Your task to perform on an android device: Open notification settings Image 0: 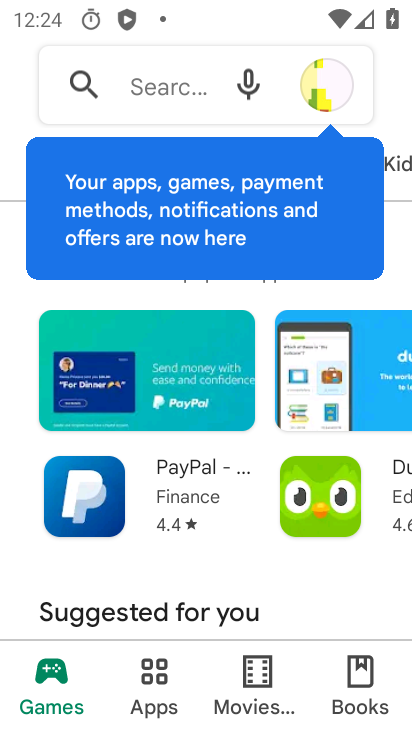
Step 0: press home button
Your task to perform on an android device: Open notification settings Image 1: 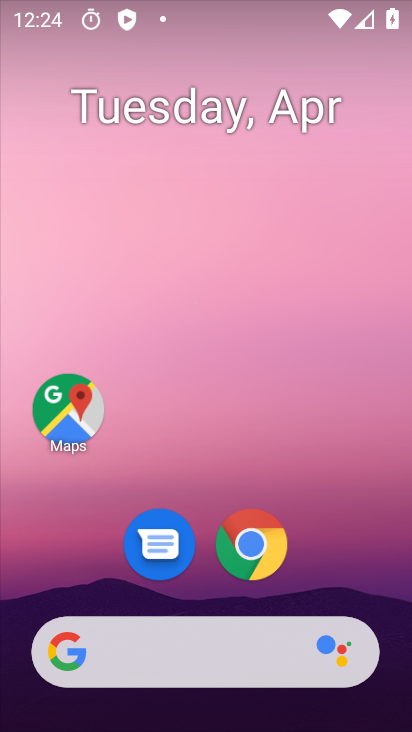
Step 1: drag from (372, 518) to (379, 36)
Your task to perform on an android device: Open notification settings Image 2: 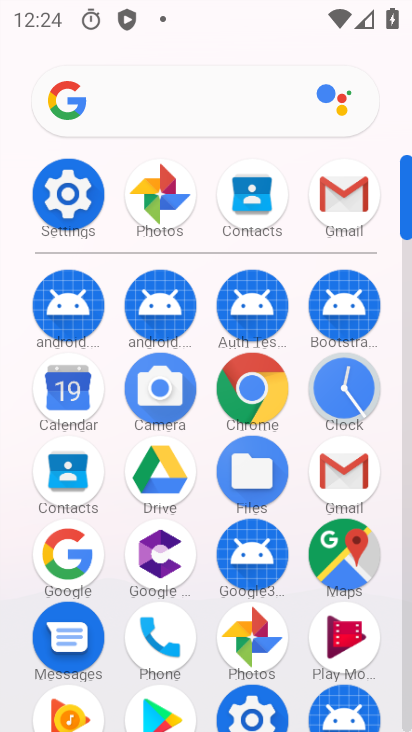
Step 2: click (64, 202)
Your task to perform on an android device: Open notification settings Image 3: 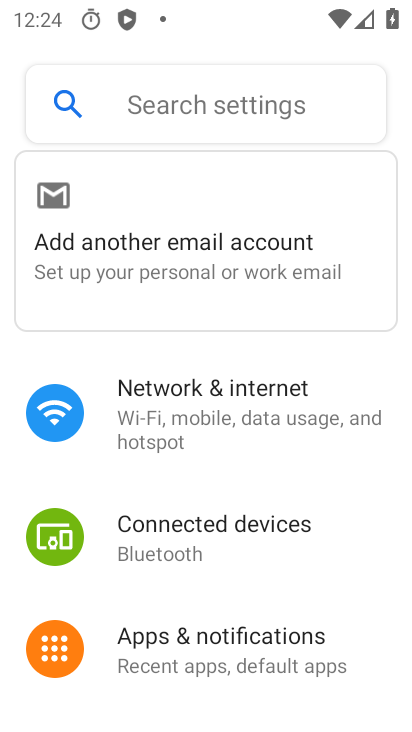
Step 3: click (221, 652)
Your task to perform on an android device: Open notification settings Image 4: 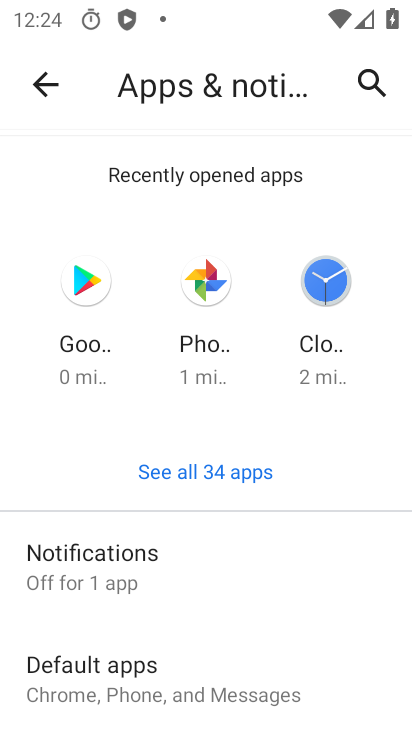
Step 4: task complete